Your task to perform on an android device: Go to Wikipedia Image 0: 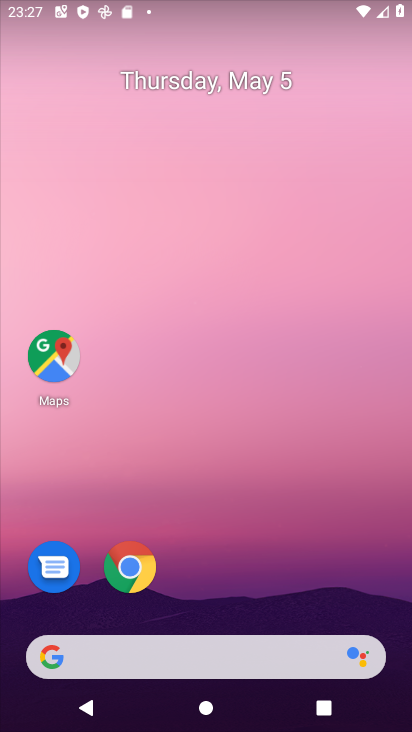
Step 0: click (200, 644)
Your task to perform on an android device: Go to Wikipedia Image 1: 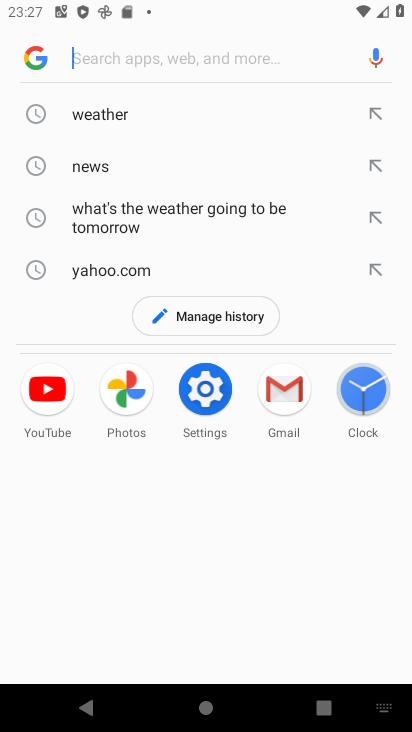
Step 1: type "Wikipedia"
Your task to perform on an android device: Go to Wikipedia Image 2: 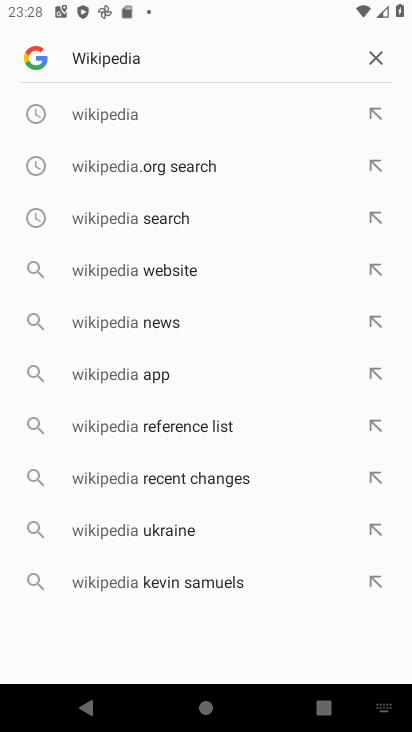
Step 2: click (119, 113)
Your task to perform on an android device: Go to Wikipedia Image 3: 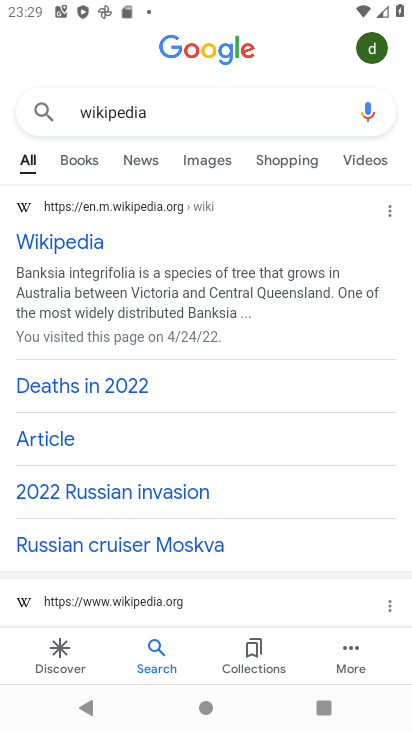
Step 3: click (52, 241)
Your task to perform on an android device: Go to Wikipedia Image 4: 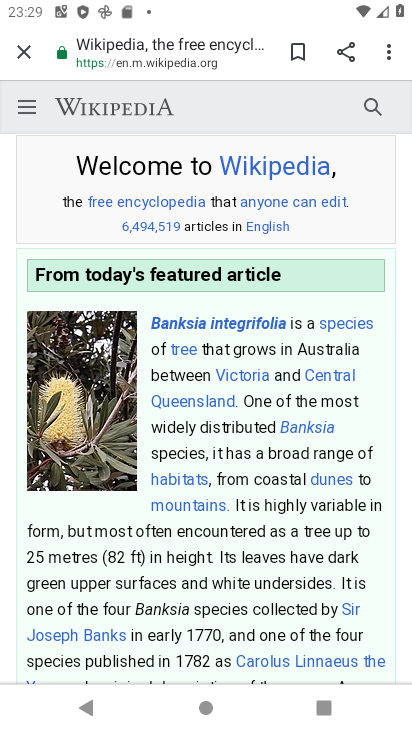
Step 4: task complete